Your task to perform on an android device: open app "Grab" (install if not already installed) and enter user name: "interspersion@gmail.com" and password: "aristocrats" Image 0: 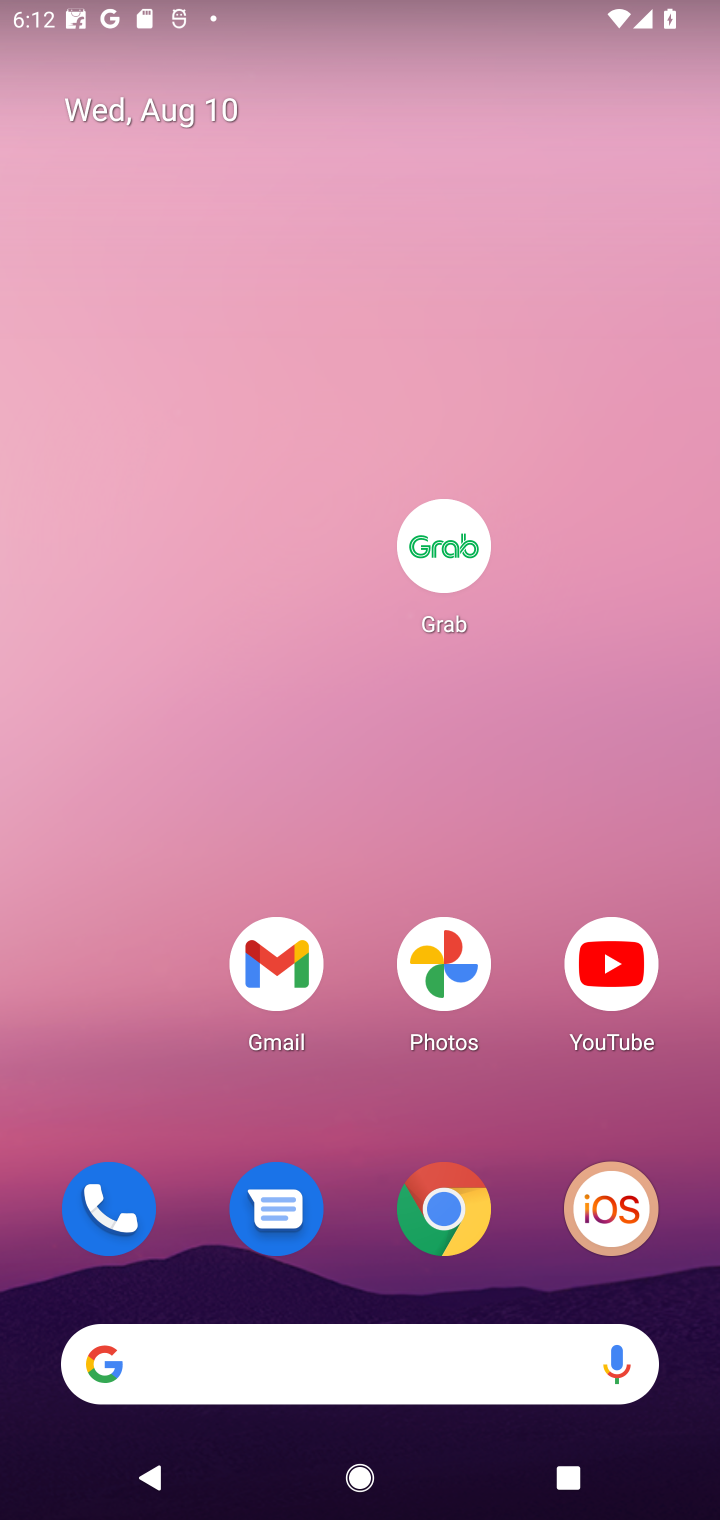
Step 0: click (485, 553)
Your task to perform on an android device: open app "Grab" (install if not already installed) and enter user name: "interspersion@gmail.com" and password: "aristocrats" Image 1: 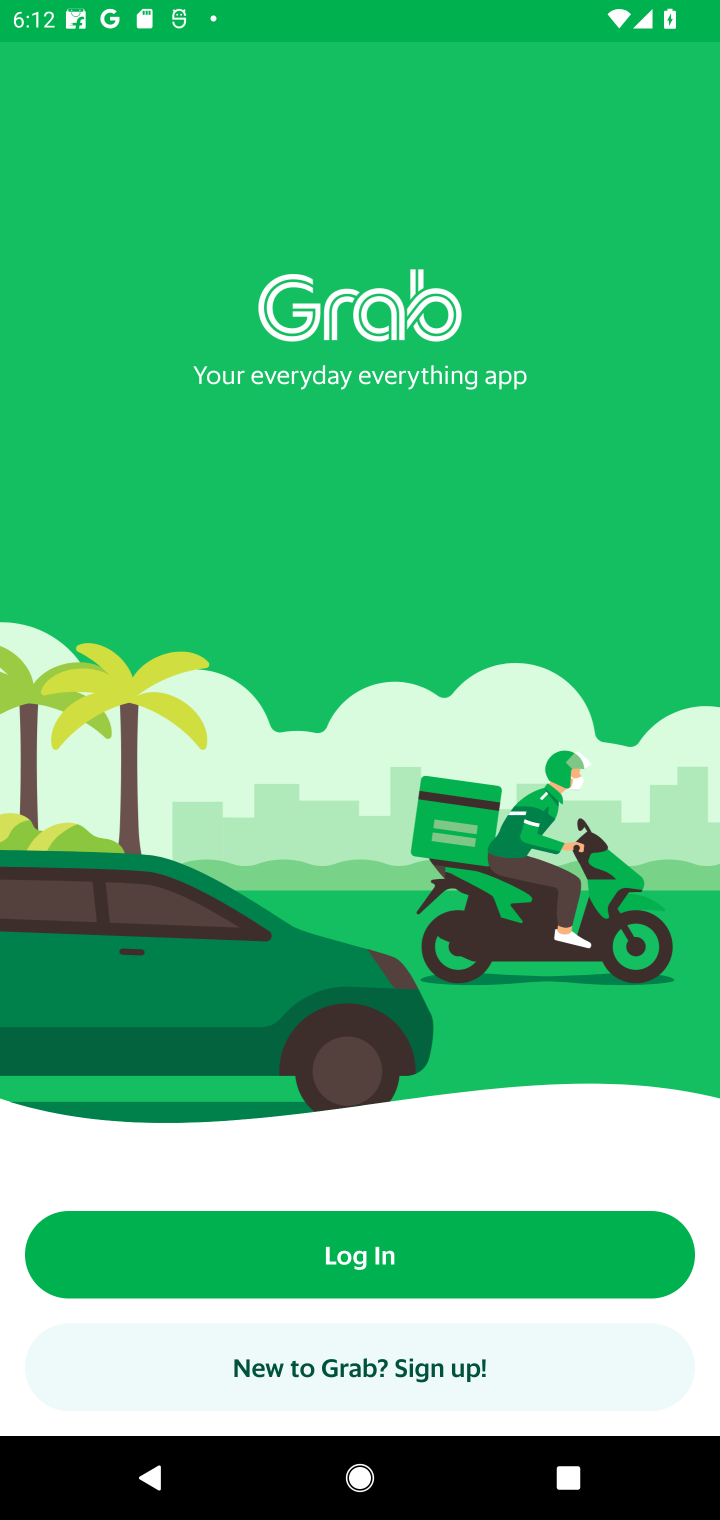
Step 1: click (361, 1235)
Your task to perform on an android device: open app "Grab" (install if not already installed) and enter user name: "interspersion@gmail.com" and password: "aristocrats" Image 2: 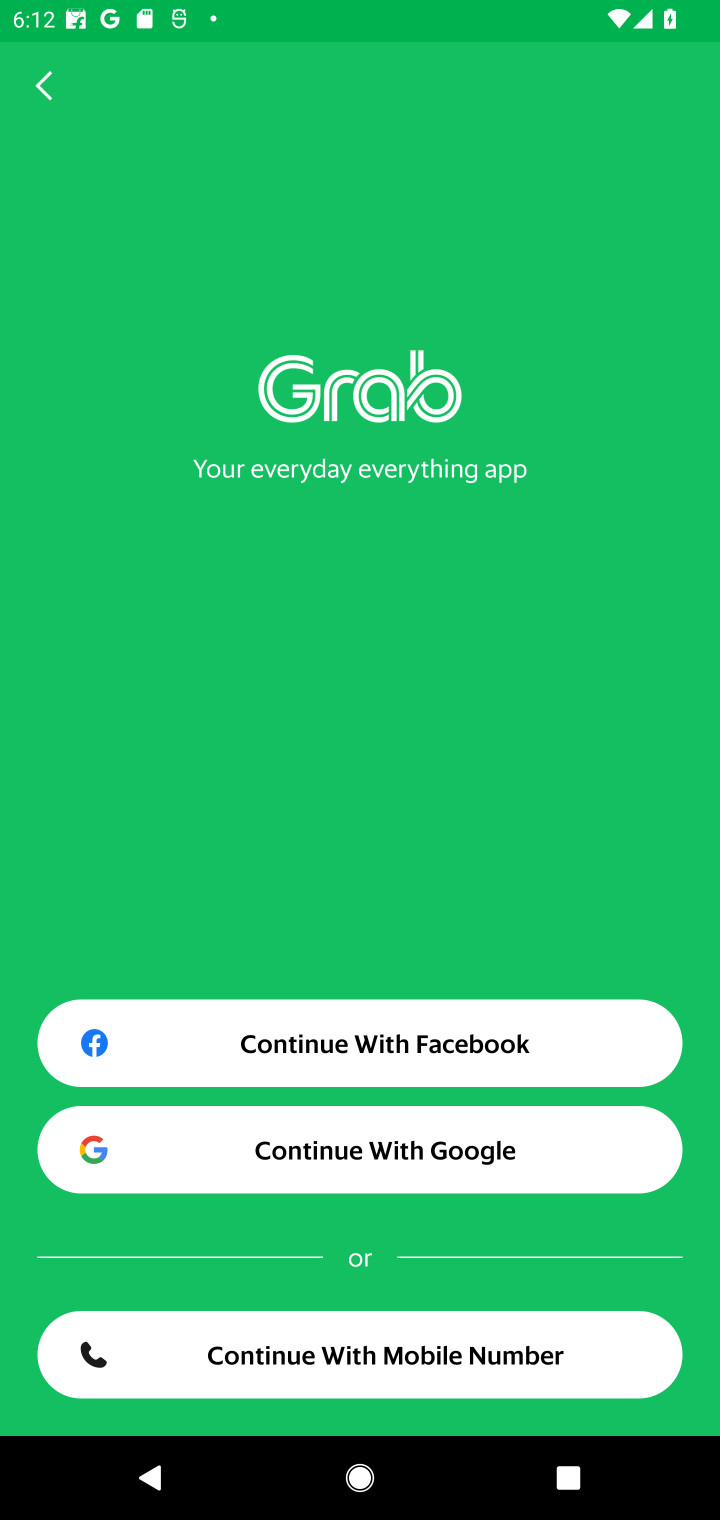
Step 2: click (293, 1144)
Your task to perform on an android device: open app "Grab" (install if not already installed) and enter user name: "interspersion@gmail.com" and password: "aristocrats" Image 3: 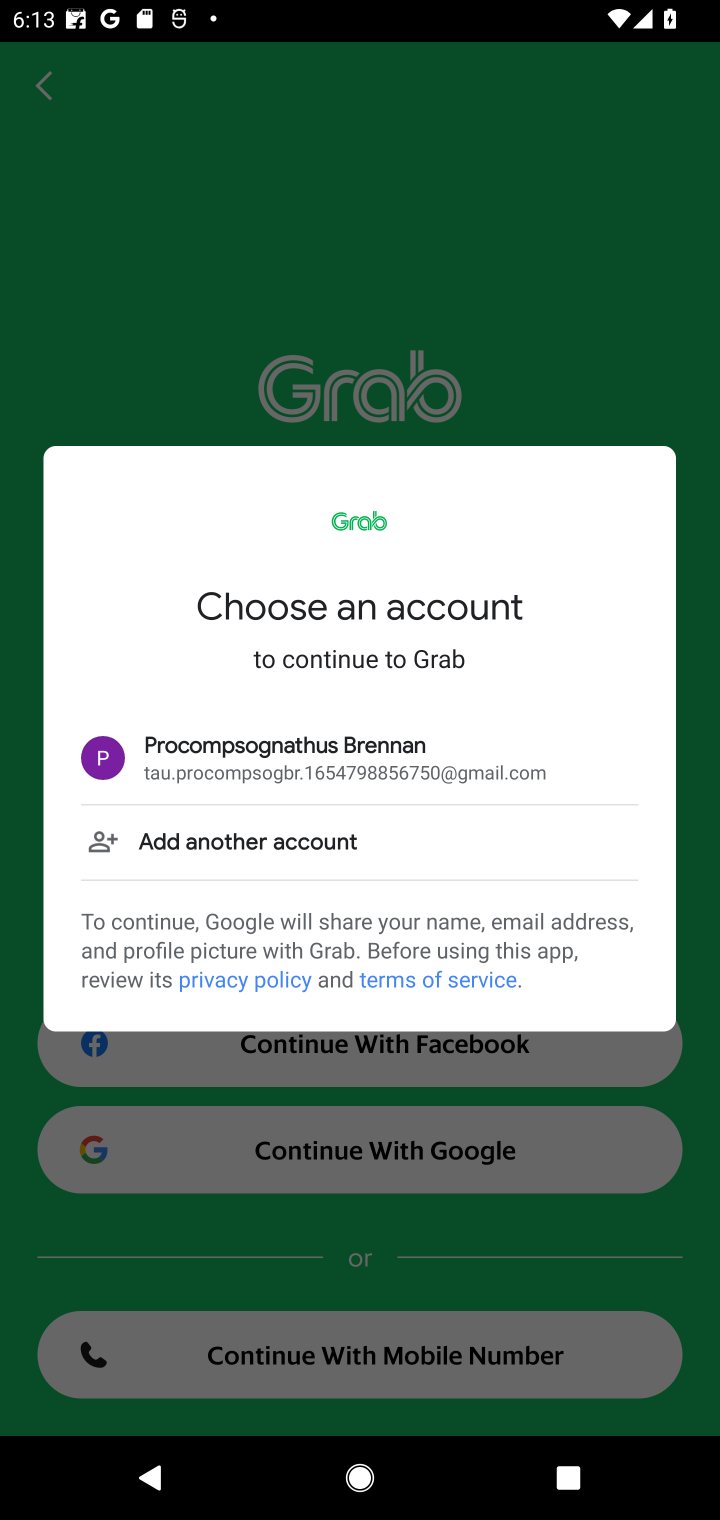
Step 3: click (394, 381)
Your task to perform on an android device: open app "Grab" (install if not already installed) and enter user name: "interspersion@gmail.com" and password: "aristocrats" Image 4: 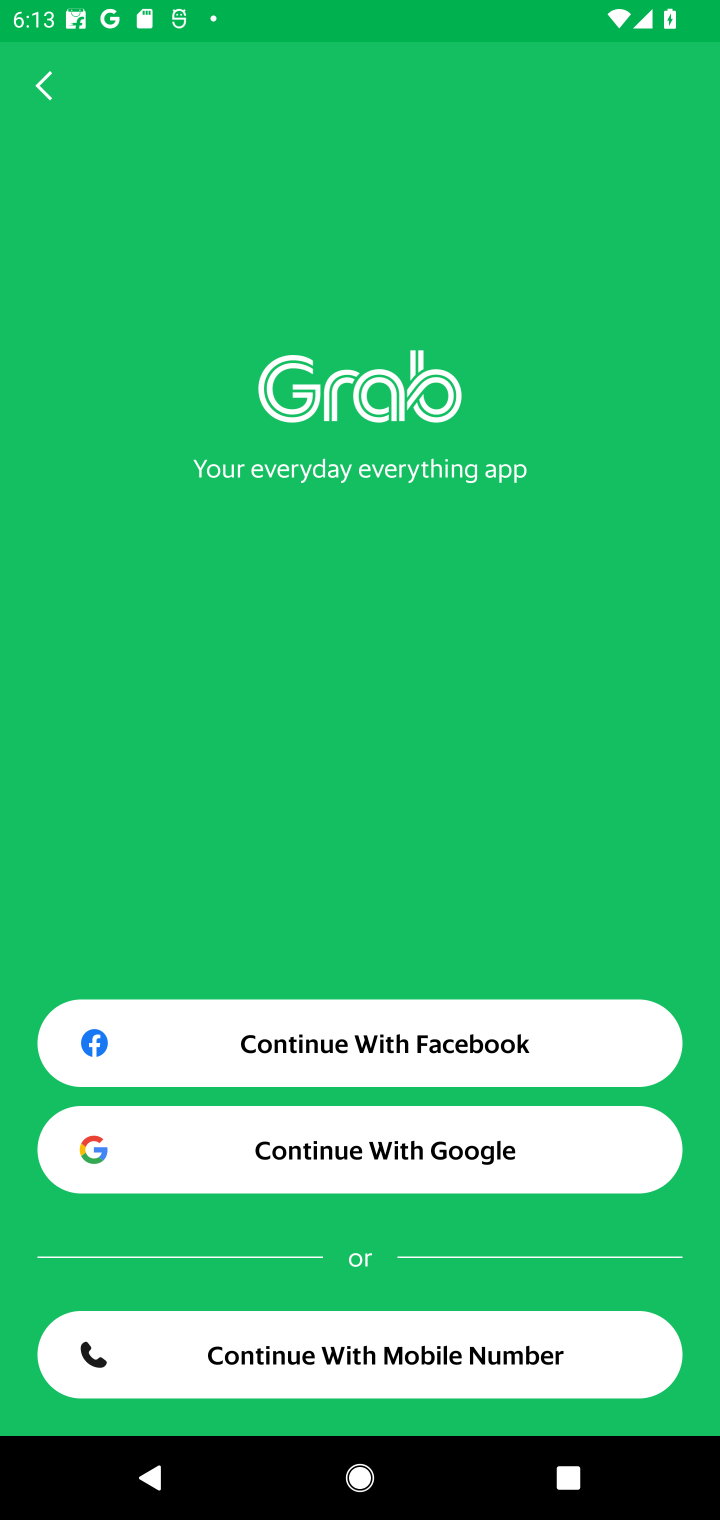
Step 4: click (460, 1019)
Your task to perform on an android device: open app "Grab" (install if not already installed) and enter user name: "interspersion@gmail.com" and password: "aristocrats" Image 5: 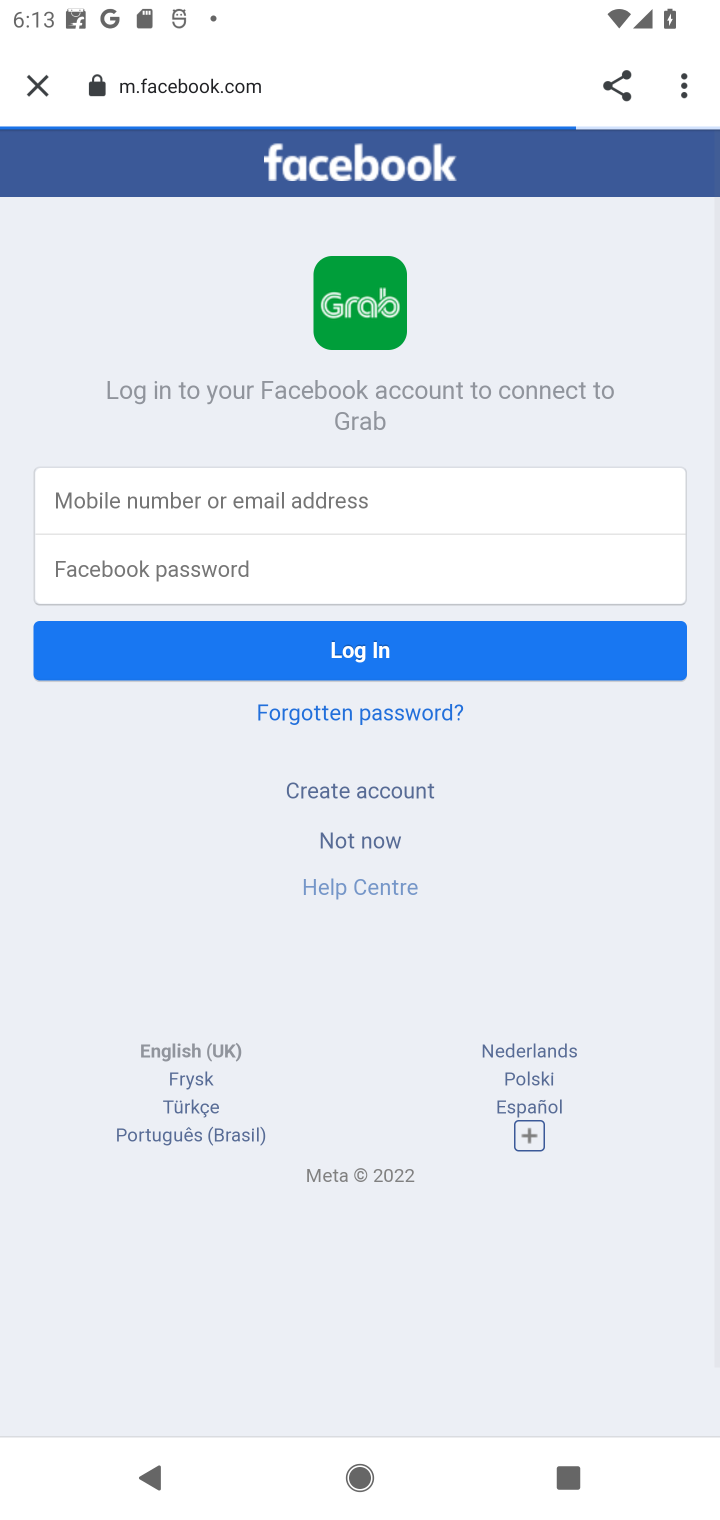
Step 5: click (48, 78)
Your task to perform on an android device: open app "Grab" (install if not already installed) and enter user name: "interspersion@gmail.com" and password: "aristocrats" Image 6: 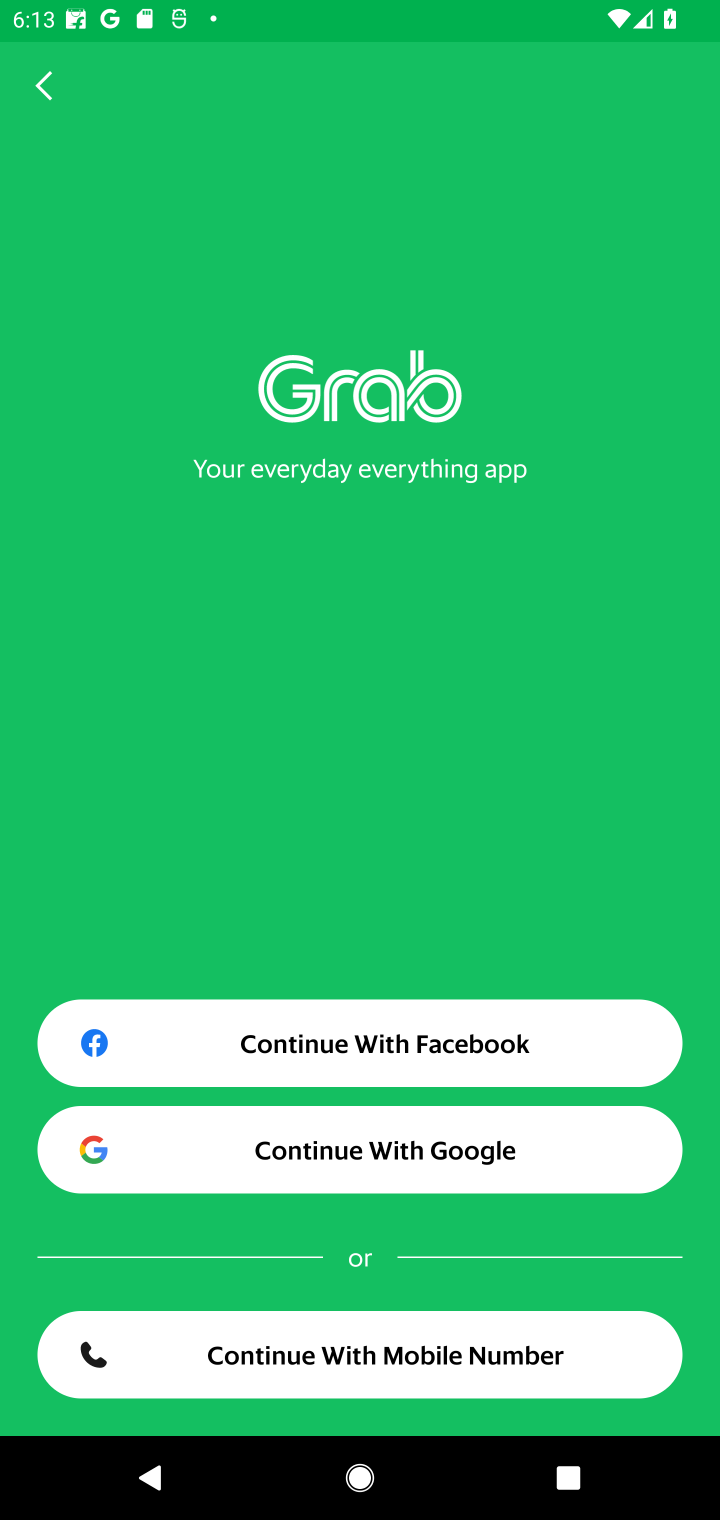
Step 6: click (255, 1181)
Your task to perform on an android device: open app "Grab" (install if not already installed) and enter user name: "interspersion@gmail.com" and password: "aristocrats" Image 7: 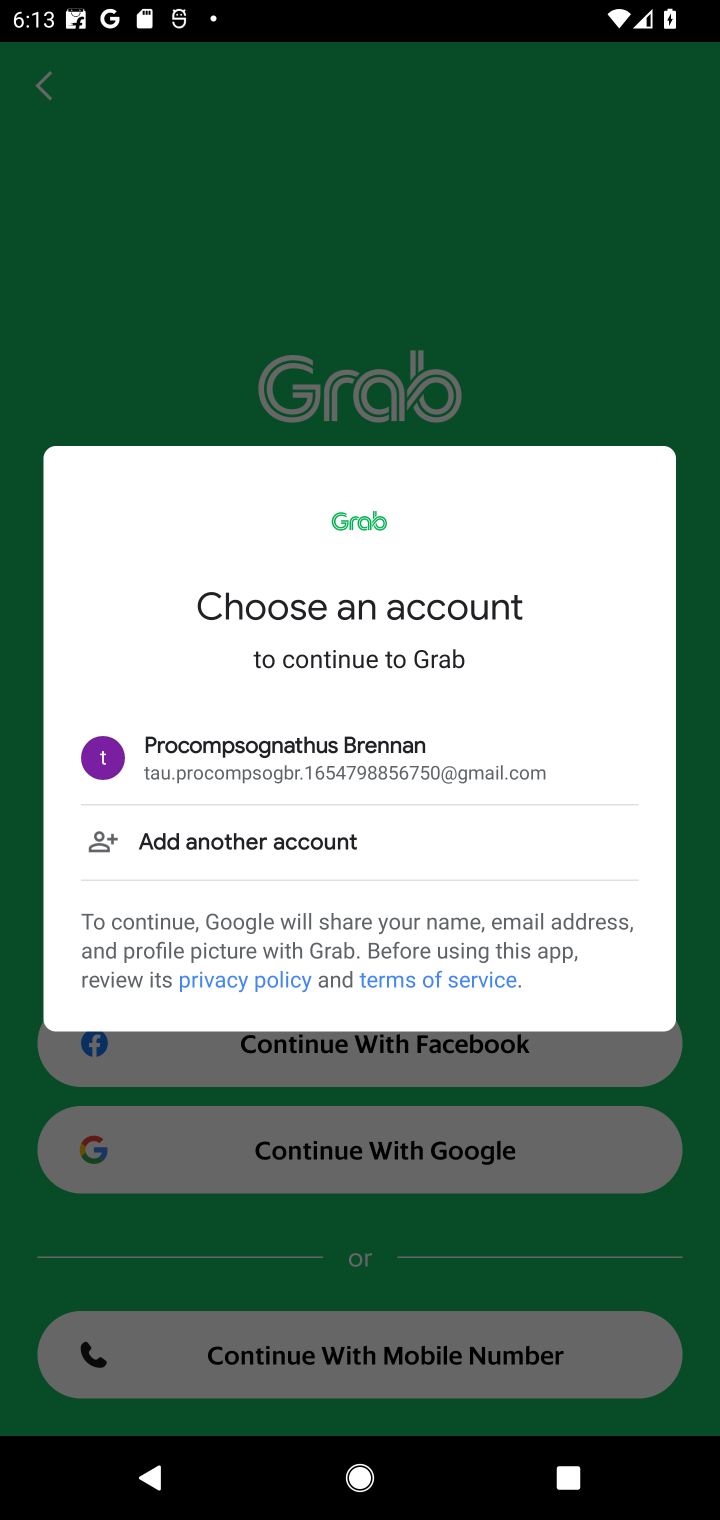
Step 7: click (285, 836)
Your task to perform on an android device: open app "Grab" (install if not already installed) and enter user name: "interspersion@gmail.com" and password: "aristocrats" Image 8: 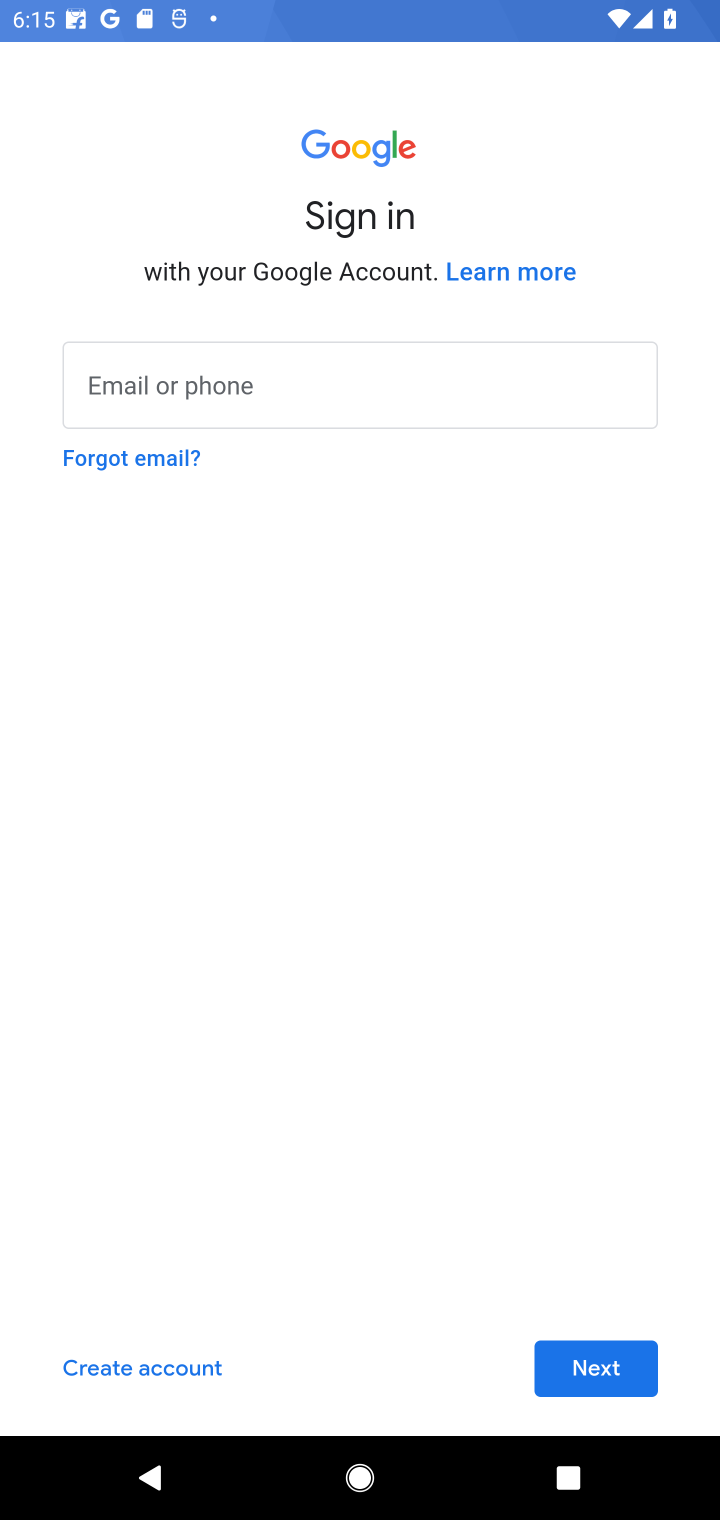
Step 8: click (330, 396)
Your task to perform on an android device: open app "Grab" (install if not already installed) and enter user name: "interspersion@gmail.com" and password: "aristocrats" Image 9: 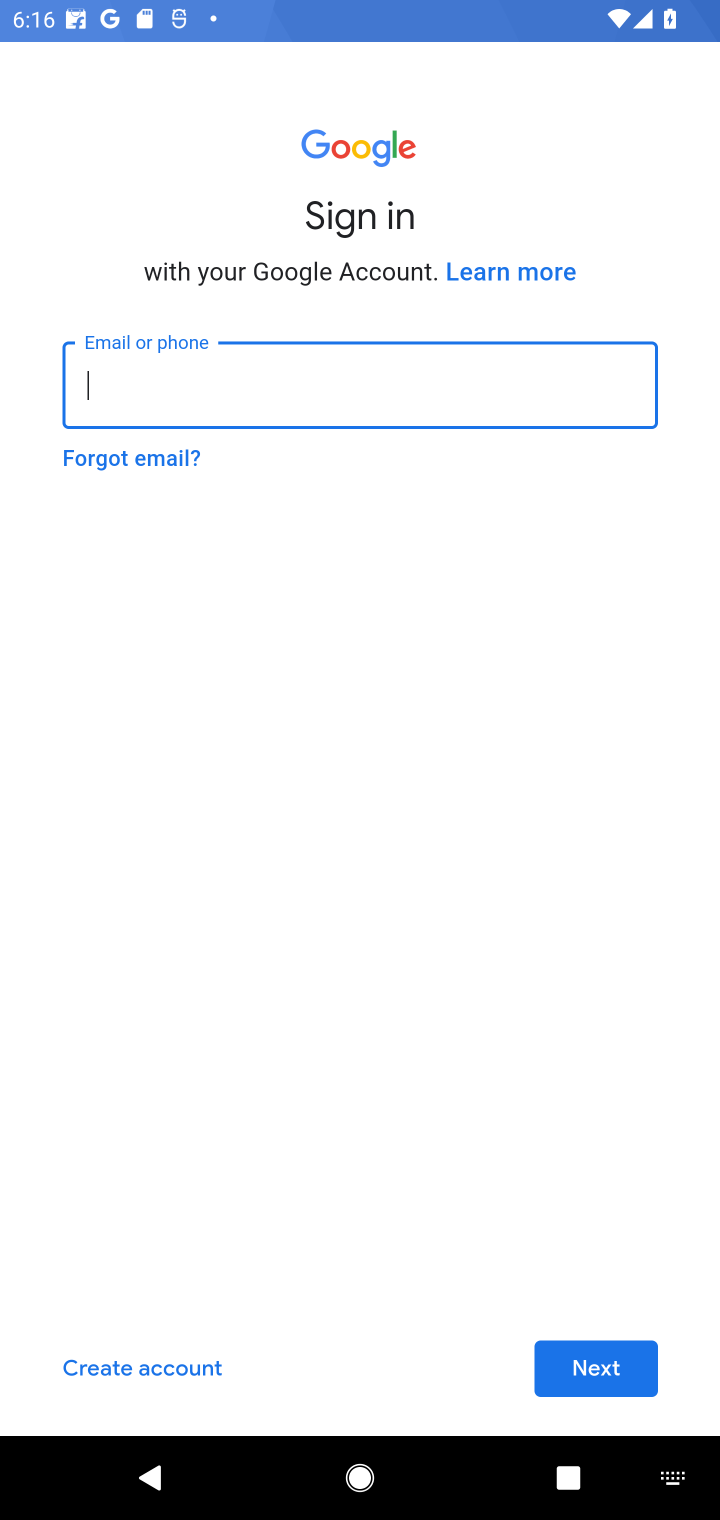
Step 9: type "interspersion@gmail.com"
Your task to perform on an android device: open app "Grab" (install if not already installed) and enter user name: "interspersion@gmail.com" and password: "aristocrats" Image 10: 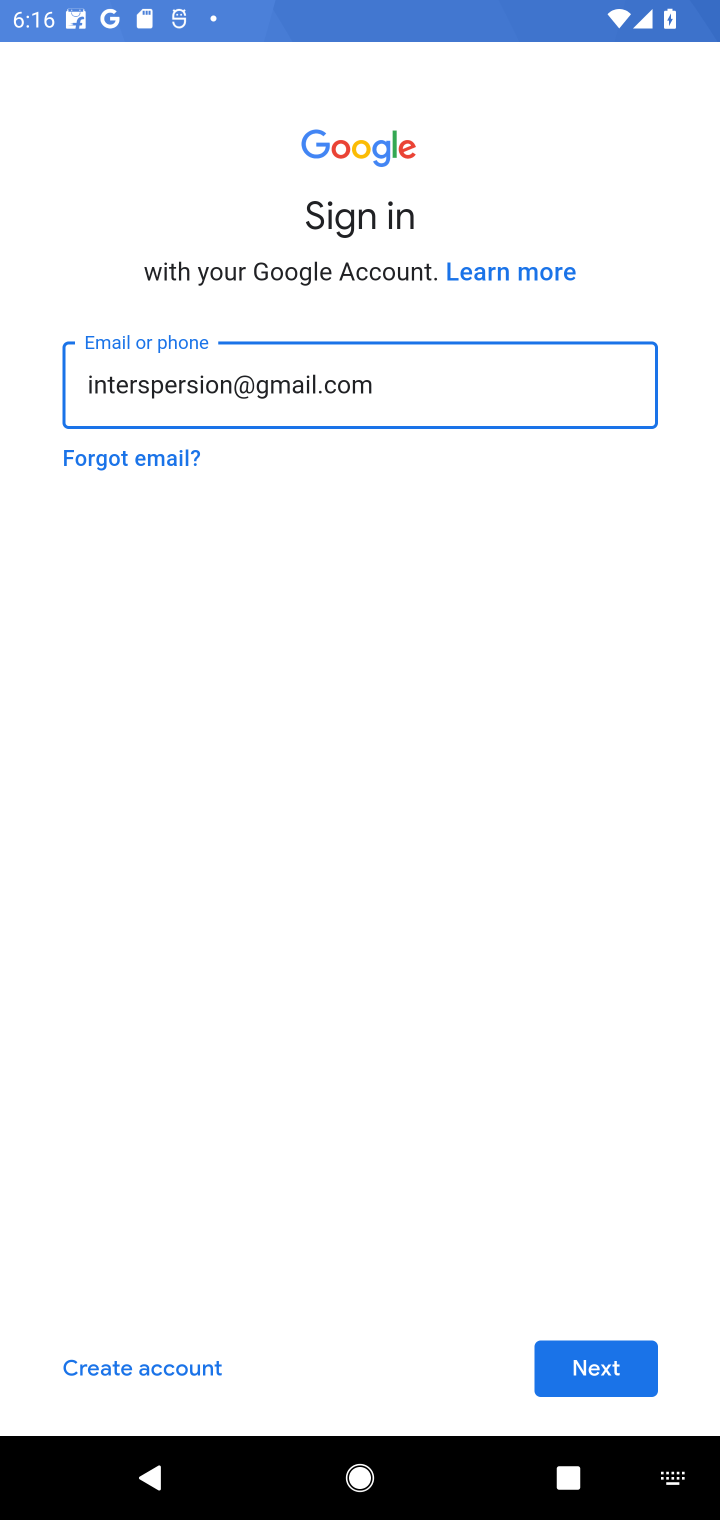
Step 10: click (606, 1396)
Your task to perform on an android device: open app "Grab" (install if not already installed) and enter user name: "interspersion@gmail.com" and password: "aristocrats" Image 11: 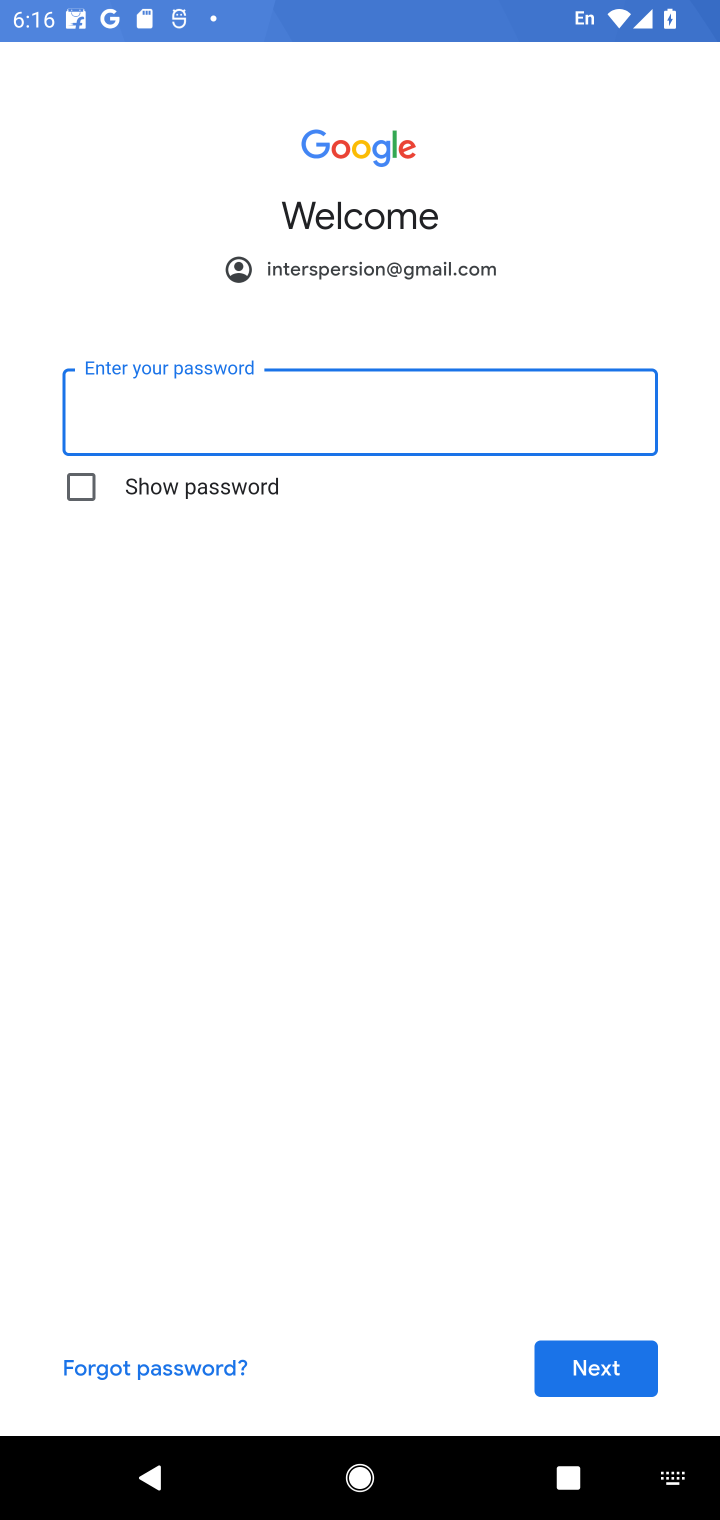
Step 11: type "aristocrats"
Your task to perform on an android device: open app "Grab" (install if not already installed) and enter user name: "interspersion@gmail.com" and password: "aristocrats" Image 12: 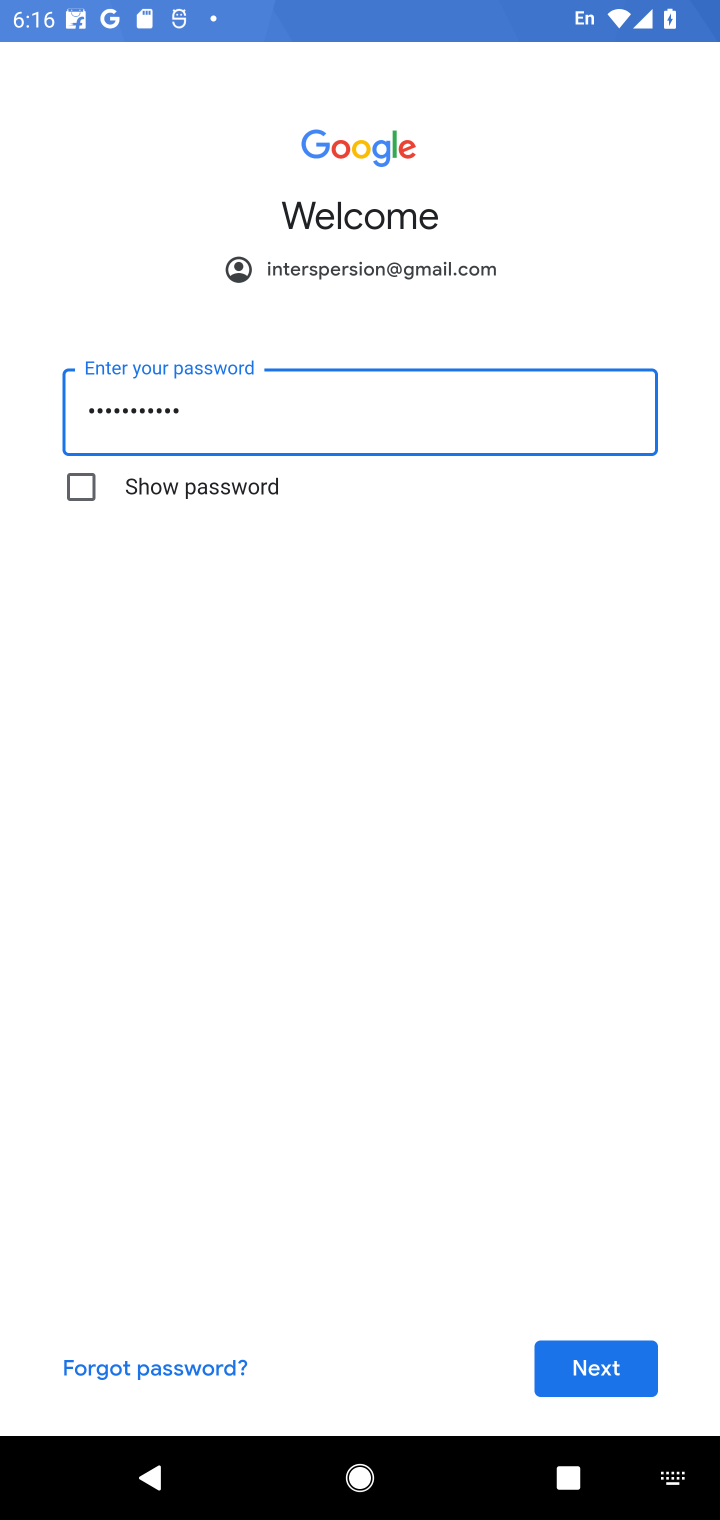
Step 12: click (580, 1382)
Your task to perform on an android device: open app "Grab" (install if not already installed) and enter user name: "interspersion@gmail.com" and password: "aristocrats" Image 13: 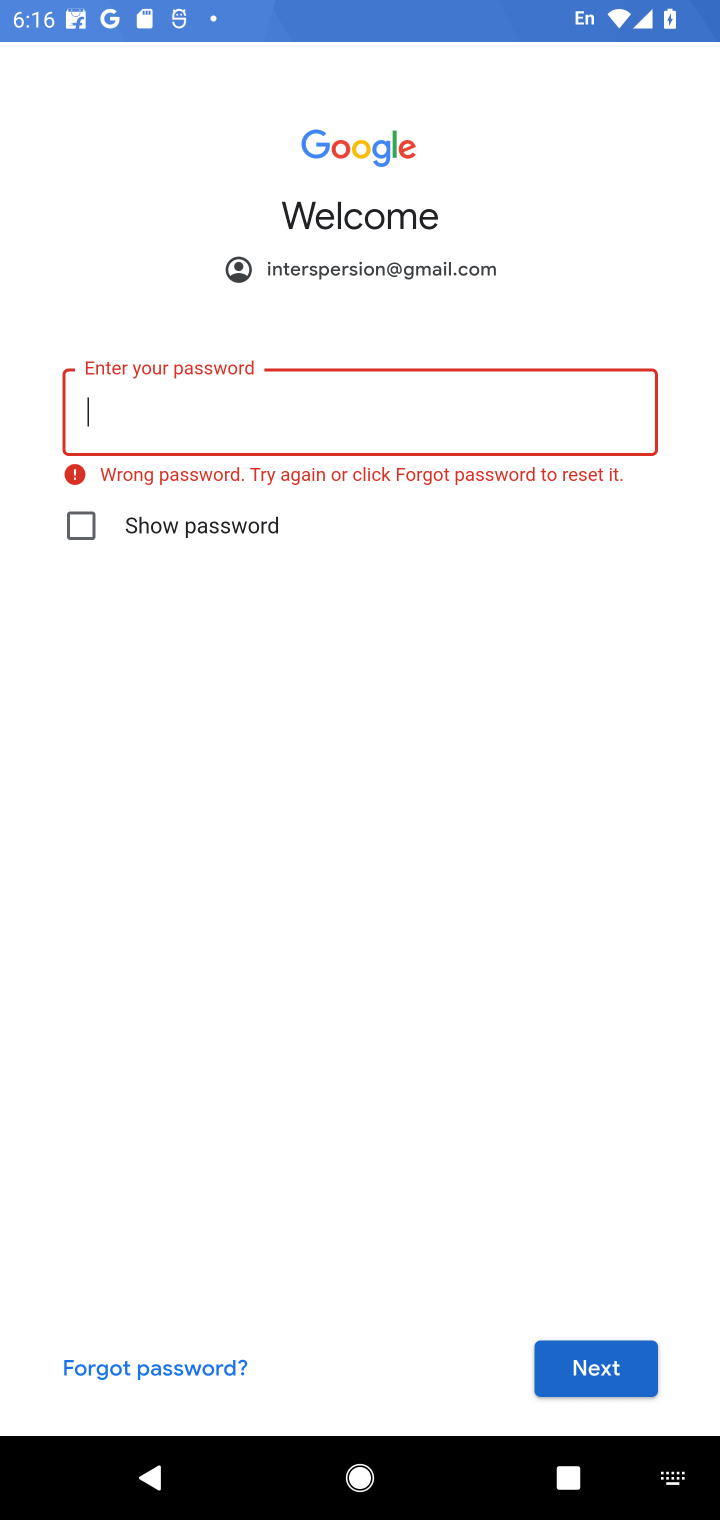
Step 13: task complete